Your task to perform on an android device: change alarm snooze length Image 0: 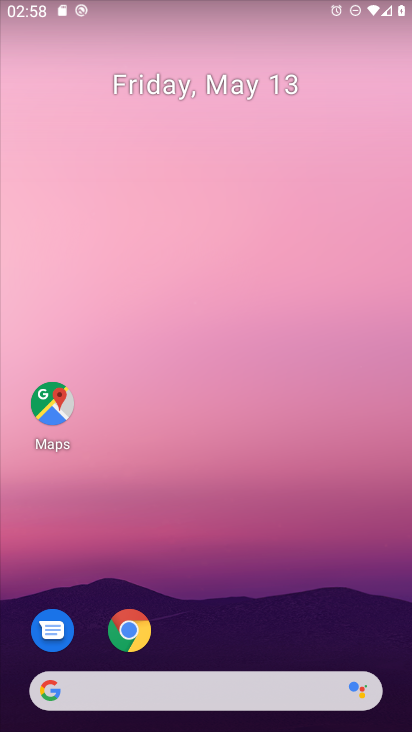
Step 0: drag from (271, 687) to (269, 298)
Your task to perform on an android device: change alarm snooze length Image 1: 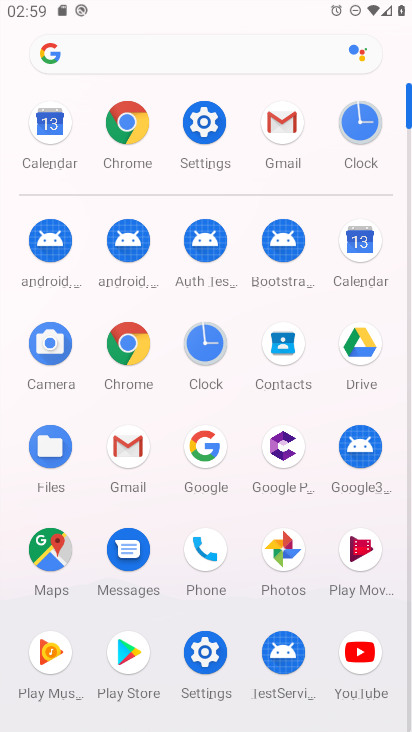
Step 1: click (346, 122)
Your task to perform on an android device: change alarm snooze length Image 2: 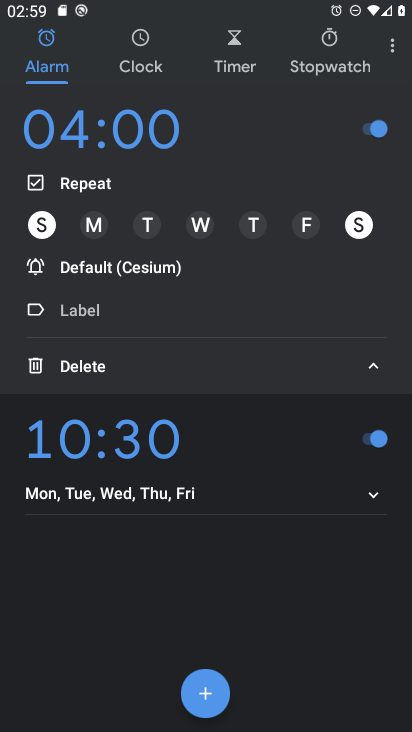
Step 2: click (378, 55)
Your task to perform on an android device: change alarm snooze length Image 3: 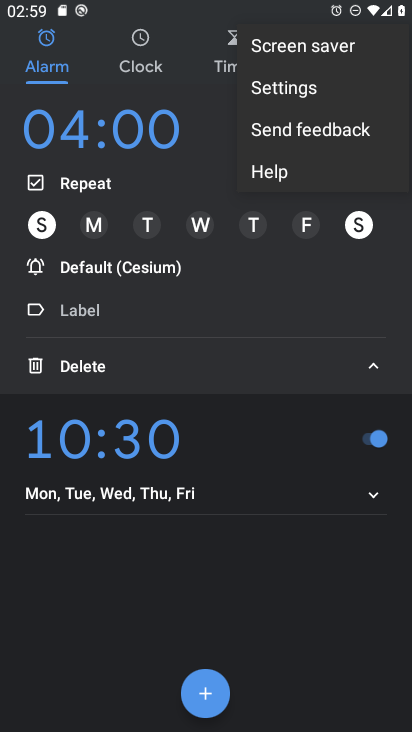
Step 3: click (275, 85)
Your task to perform on an android device: change alarm snooze length Image 4: 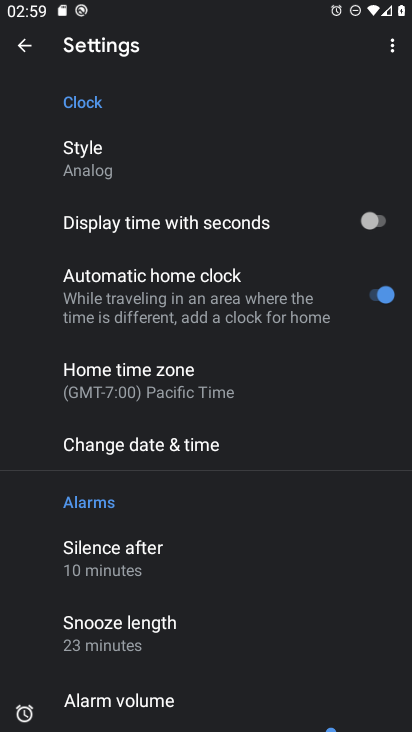
Step 4: click (153, 615)
Your task to perform on an android device: change alarm snooze length Image 5: 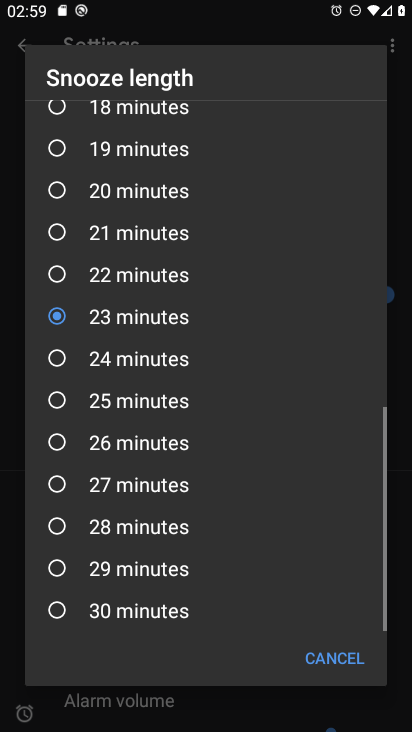
Step 5: click (95, 460)
Your task to perform on an android device: change alarm snooze length Image 6: 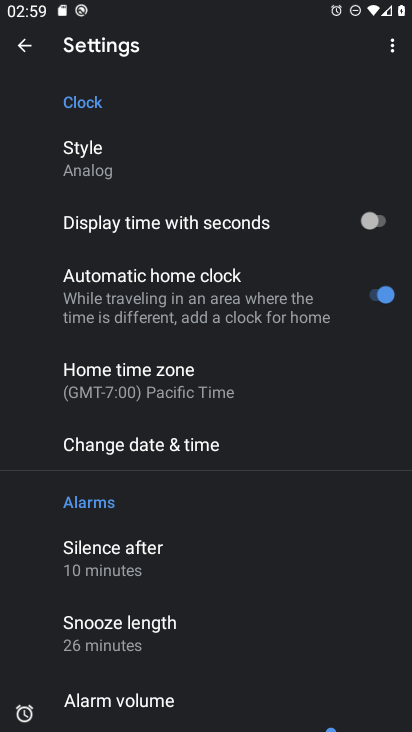
Step 6: task complete